Your task to perform on an android device: Go to calendar. Show me events next week Image 0: 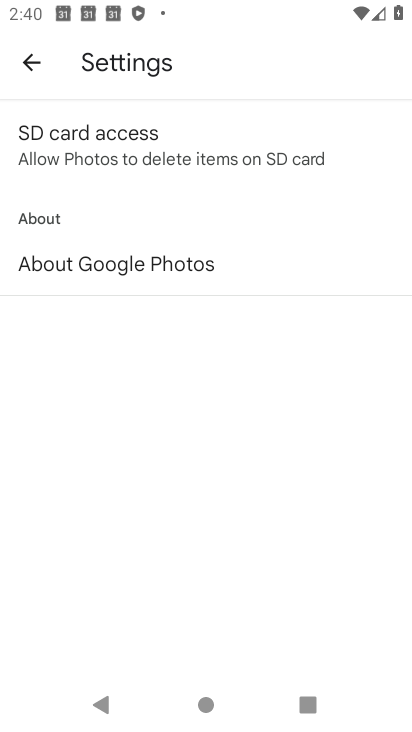
Step 0: click (212, 343)
Your task to perform on an android device: Go to calendar. Show me events next week Image 1: 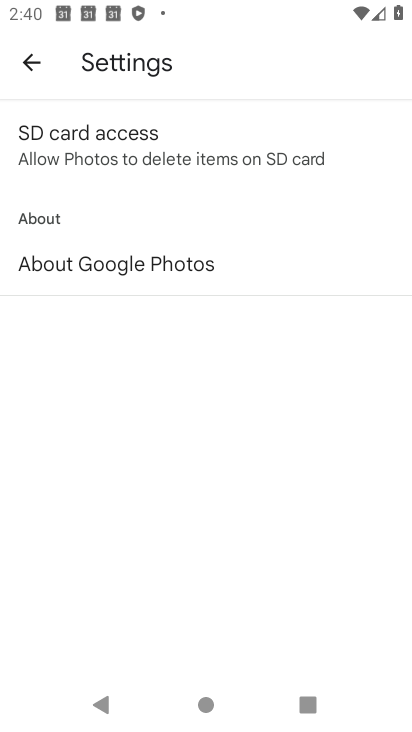
Step 1: click (302, 474)
Your task to perform on an android device: Go to calendar. Show me events next week Image 2: 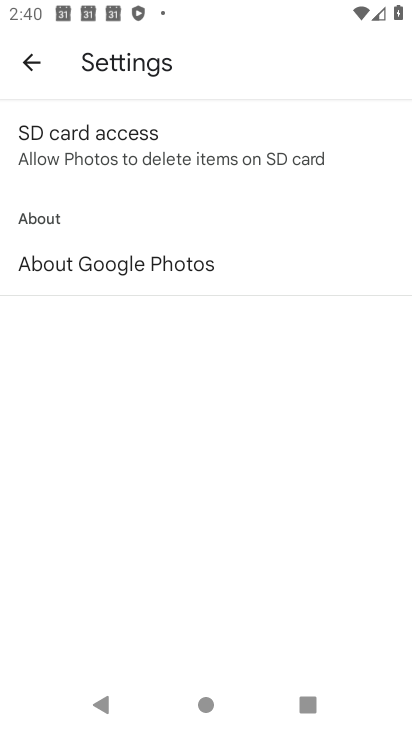
Step 2: press home button
Your task to perform on an android device: Go to calendar. Show me events next week Image 3: 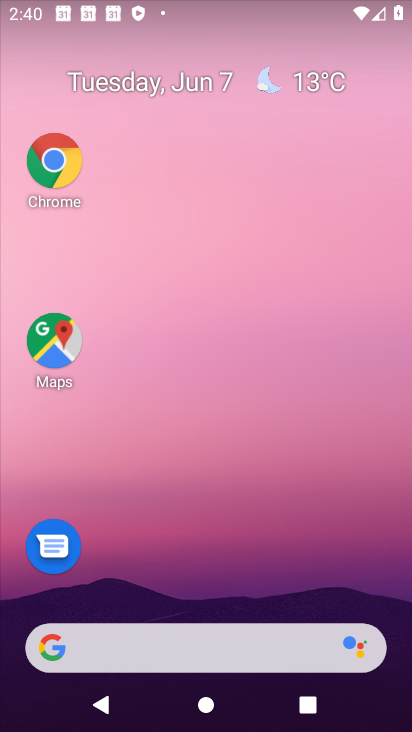
Step 3: drag from (172, 555) to (250, 209)
Your task to perform on an android device: Go to calendar. Show me events next week Image 4: 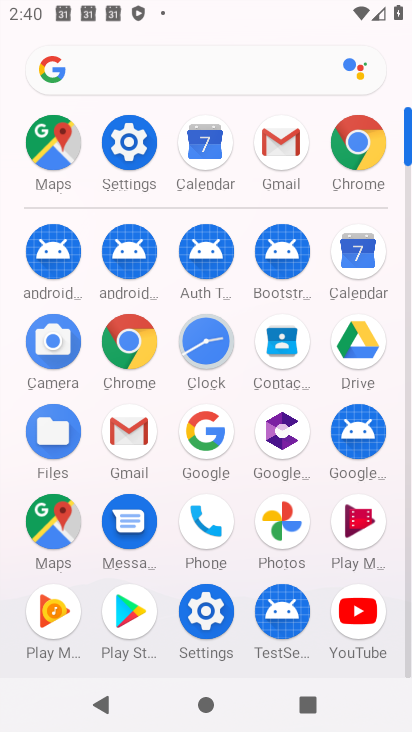
Step 4: click (363, 253)
Your task to perform on an android device: Go to calendar. Show me events next week Image 5: 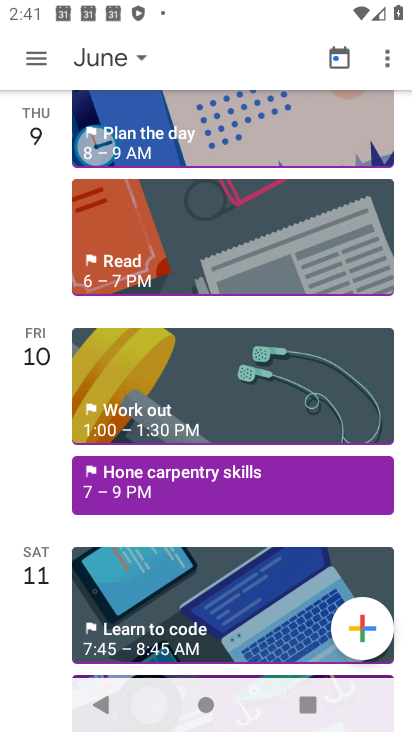
Step 5: click (109, 54)
Your task to perform on an android device: Go to calendar. Show me events next week Image 6: 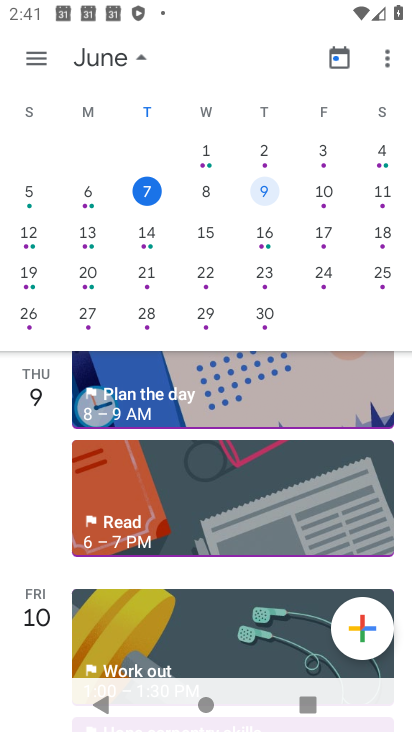
Step 6: click (265, 247)
Your task to perform on an android device: Go to calendar. Show me events next week Image 7: 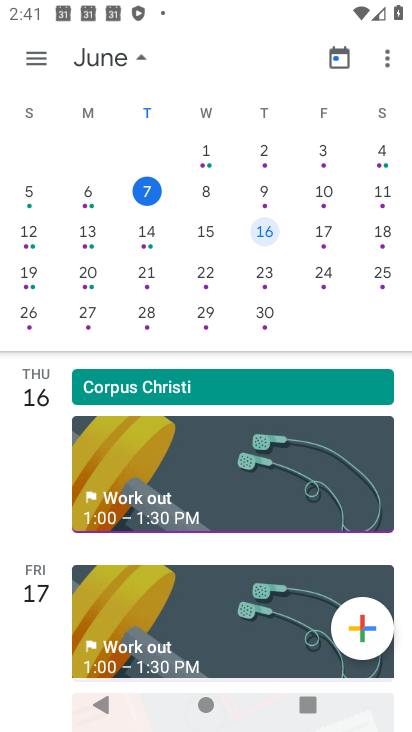
Step 7: task complete